Your task to perform on an android device: Open the calendar and show me this week's events Image 0: 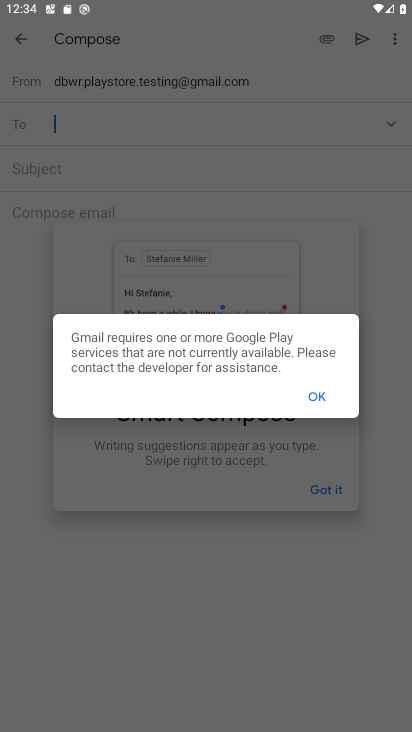
Step 0: press home button
Your task to perform on an android device: Open the calendar and show me this week's events Image 1: 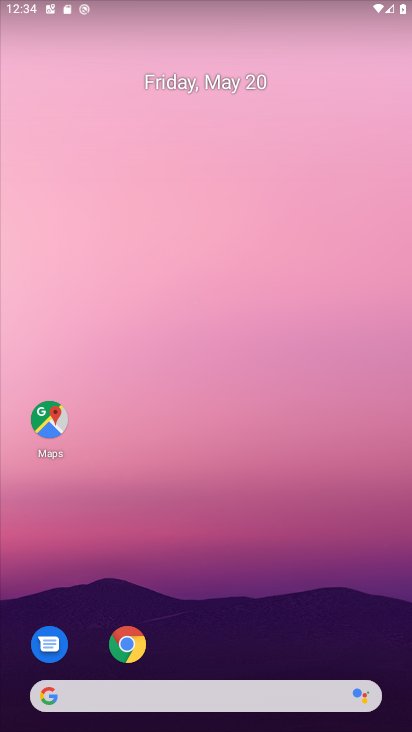
Step 1: drag from (147, 671) to (170, 352)
Your task to perform on an android device: Open the calendar and show me this week's events Image 2: 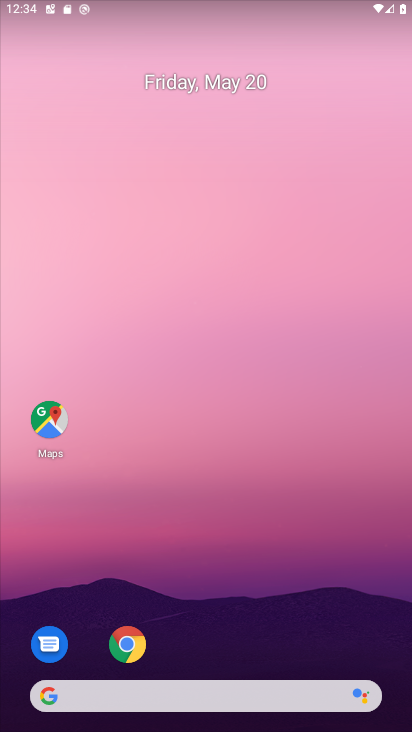
Step 2: drag from (225, 620) to (209, 197)
Your task to perform on an android device: Open the calendar and show me this week's events Image 3: 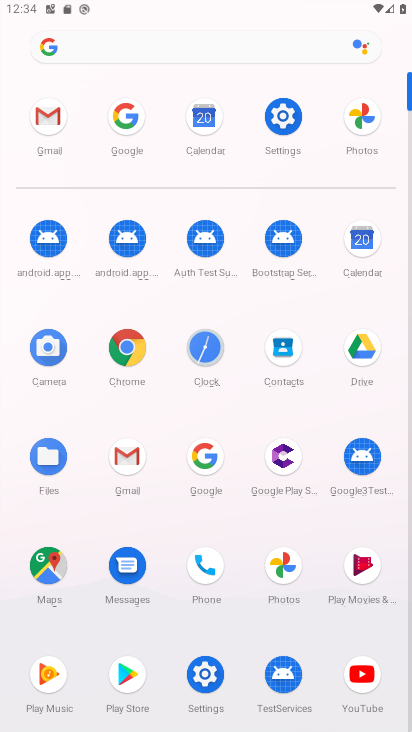
Step 3: click (358, 241)
Your task to perform on an android device: Open the calendar and show me this week's events Image 4: 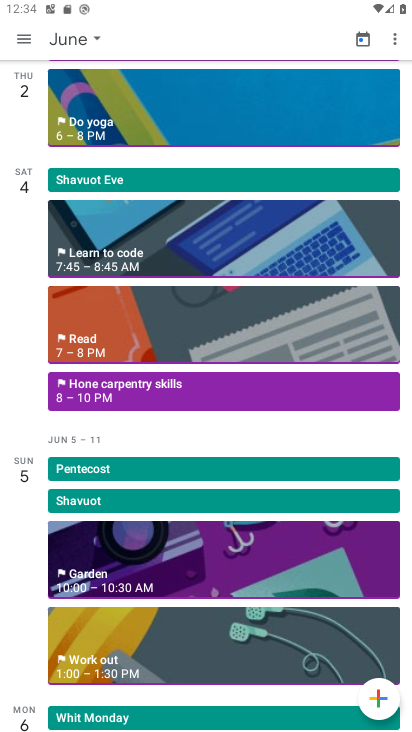
Step 4: click (75, 38)
Your task to perform on an android device: Open the calendar and show me this week's events Image 5: 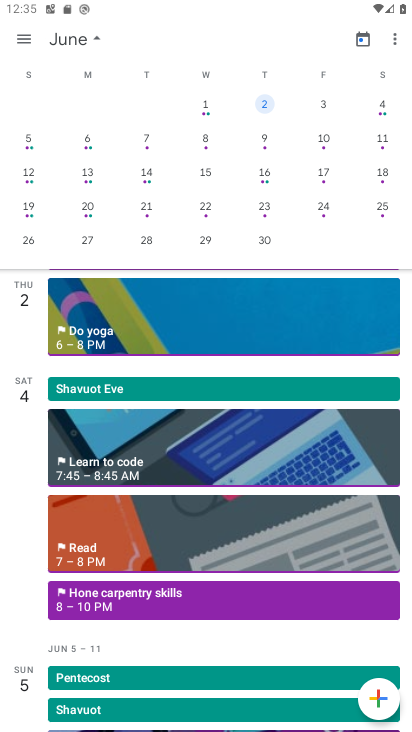
Step 5: drag from (119, 178) to (411, 179)
Your task to perform on an android device: Open the calendar and show me this week's events Image 6: 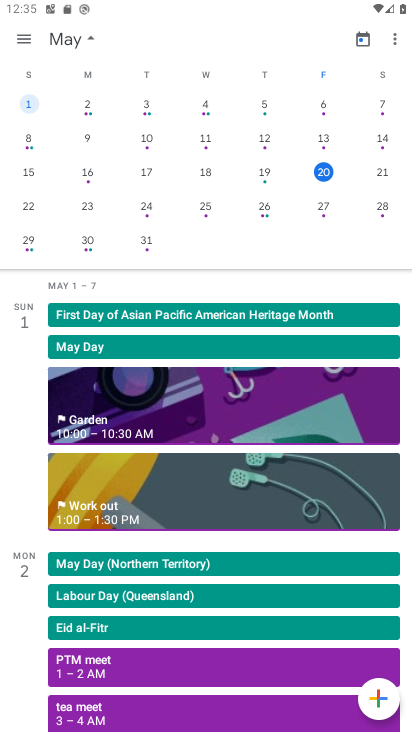
Step 6: click (322, 173)
Your task to perform on an android device: Open the calendar and show me this week's events Image 7: 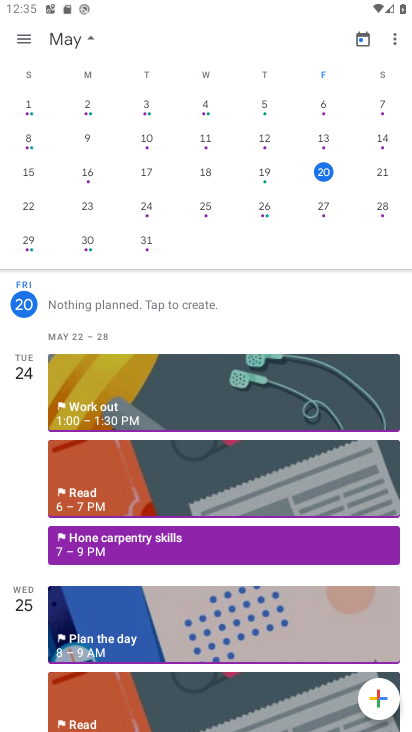
Step 7: drag from (147, 647) to (139, 415)
Your task to perform on an android device: Open the calendar and show me this week's events Image 8: 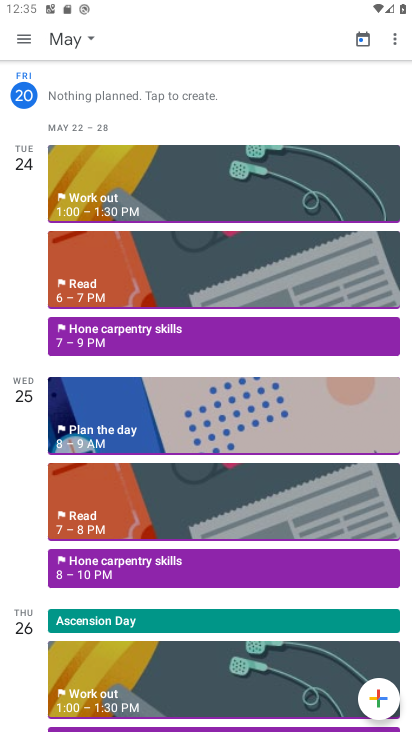
Step 8: click (130, 97)
Your task to perform on an android device: Open the calendar and show me this week's events Image 9: 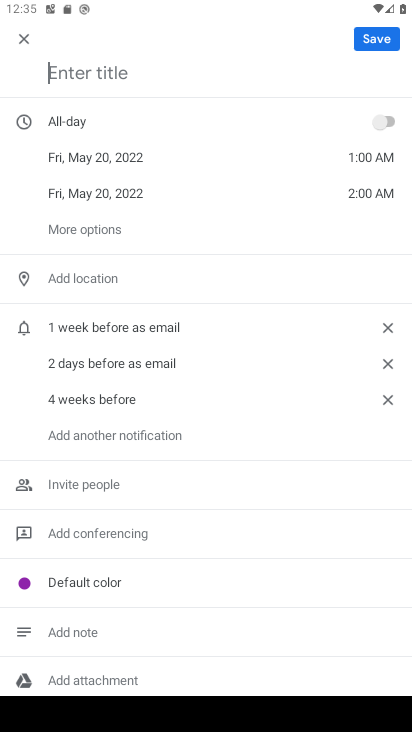
Step 9: task complete